Your task to perform on an android device: see tabs open on other devices in the chrome app Image 0: 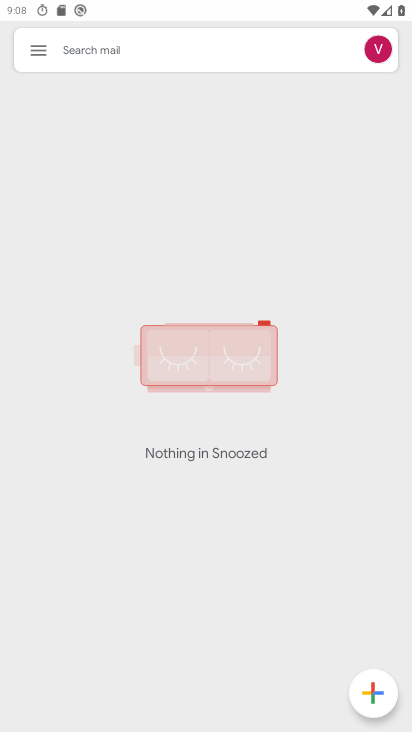
Step 0: press home button
Your task to perform on an android device: see tabs open on other devices in the chrome app Image 1: 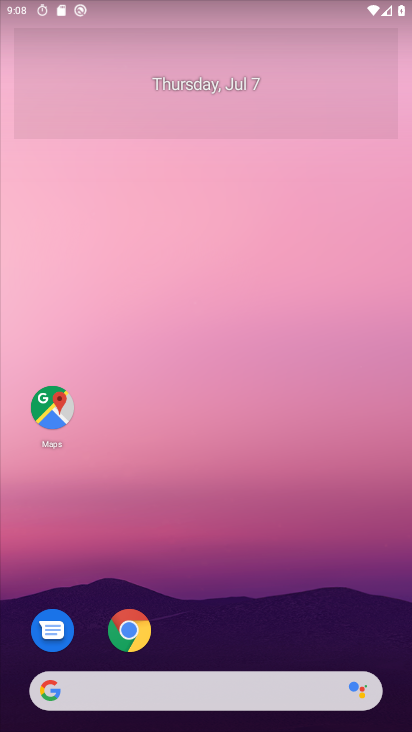
Step 1: click (121, 640)
Your task to perform on an android device: see tabs open on other devices in the chrome app Image 2: 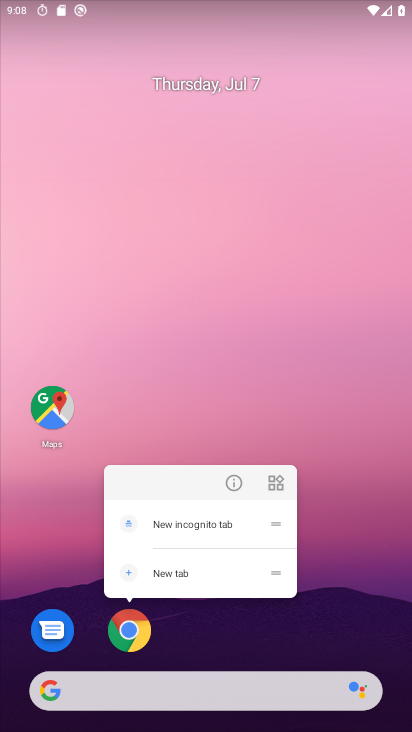
Step 2: click (129, 630)
Your task to perform on an android device: see tabs open on other devices in the chrome app Image 3: 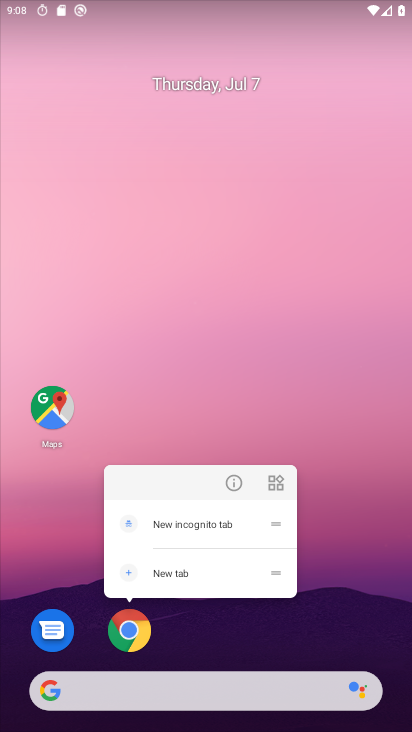
Step 3: click (133, 637)
Your task to perform on an android device: see tabs open on other devices in the chrome app Image 4: 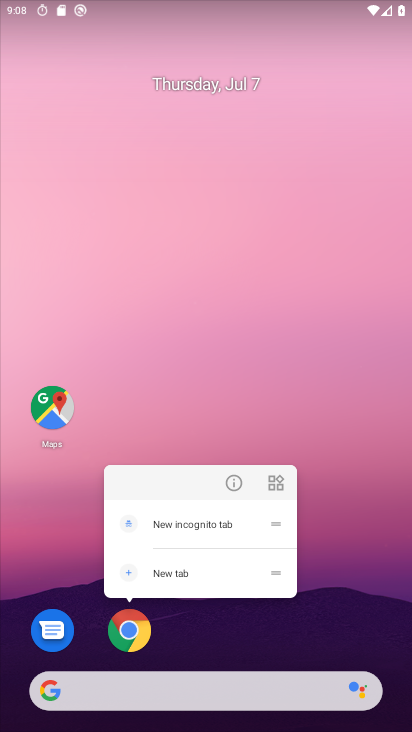
Step 4: click (132, 624)
Your task to perform on an android device: see tabs open on other devices in the chrome app Image 5: 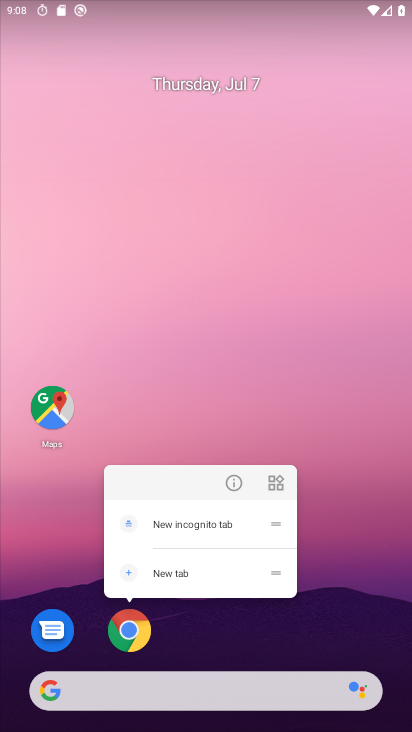
Step 5: click (131, 614)
Your task to perform on an android device: see tabs open on other devices in the chrome app Image 6: 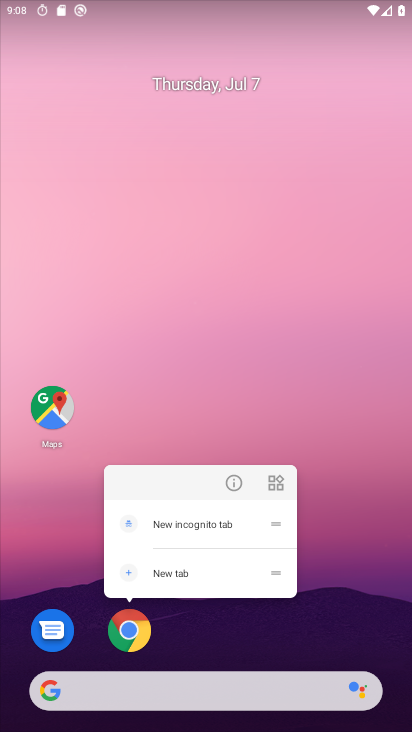
Step 6: click (128, 638)
Your task to perform on an android device: see tabs open on other devices in the chrome app Image 7: 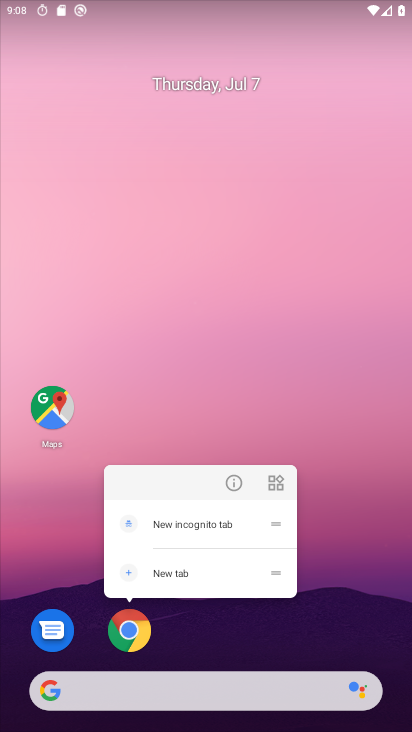
Step 7: click (125, 625)
Your task to perform on an android device: see tabs open on other devices in the chrome app Image 8: 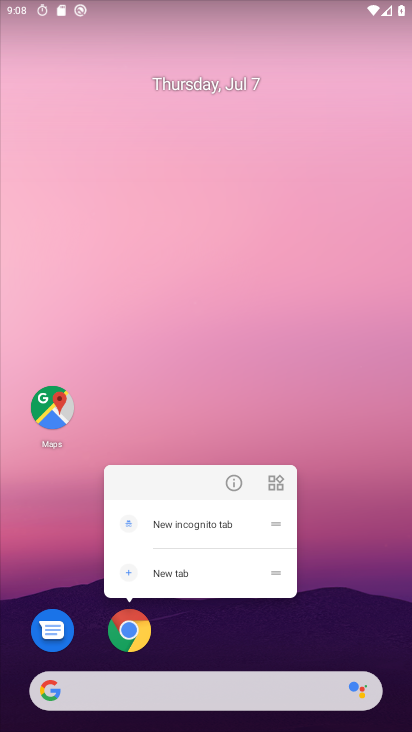
Step 8: click (122, 614)
Your task to perform on an android device: see tabs open on other devices in the chrome app Image 9: 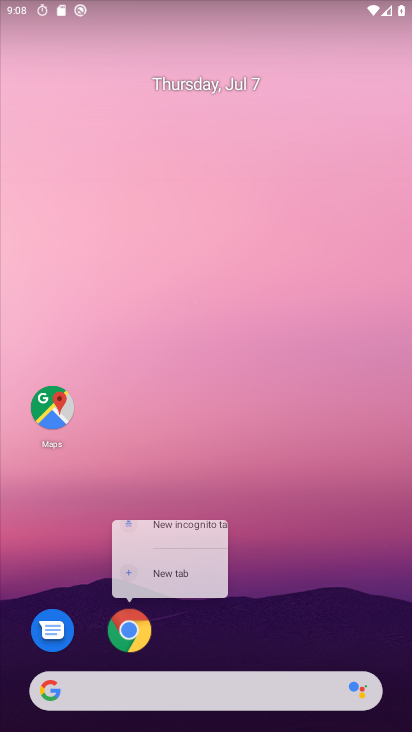
Step 9: click (124, 617)
Your task to perform on an android device: see tabs open on other devices in the chrome app Image 10: 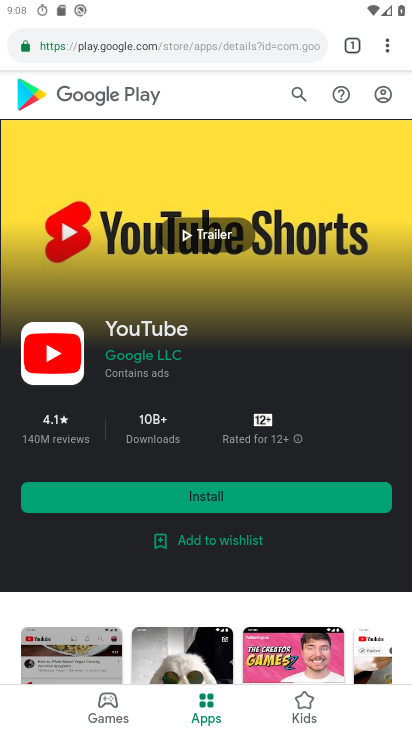
Step 10: task complete